Your task to perform on an android device: Go to Google Image 0: 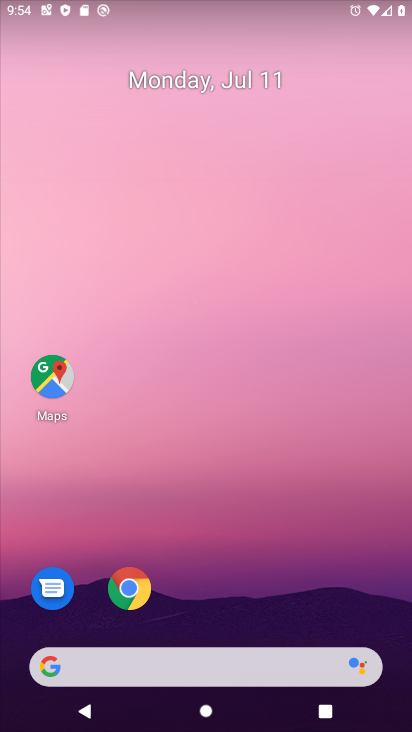
Step 0: drag from (231, 613) to (309, 0)
Your task to perform on an android device: Go to Google Image 1: 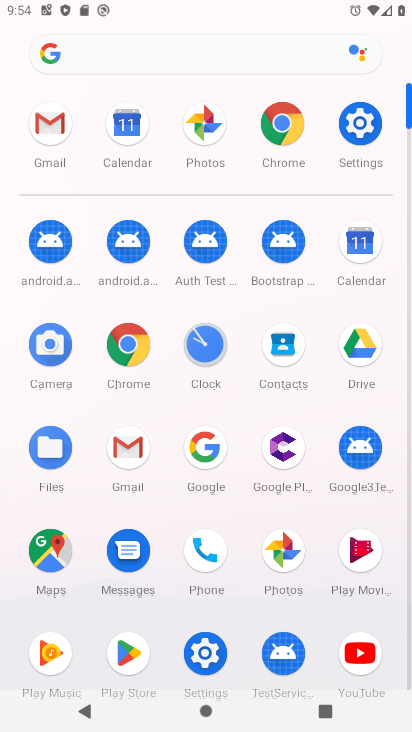
Step 1: click (210, 458)
Your task to perform on an android device: Go to Google Image 2: 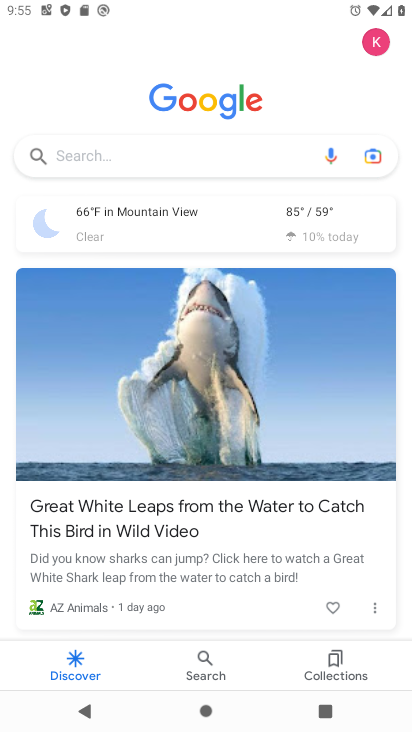
Step 2: task complete